Your task to perform on an android device: turn on location history Image 0: 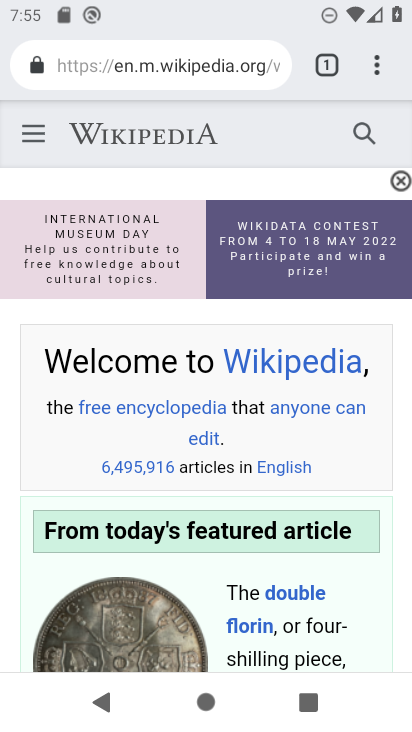
Step 0: press home button
Your task to perform on an android device: turn on location history Image 1: 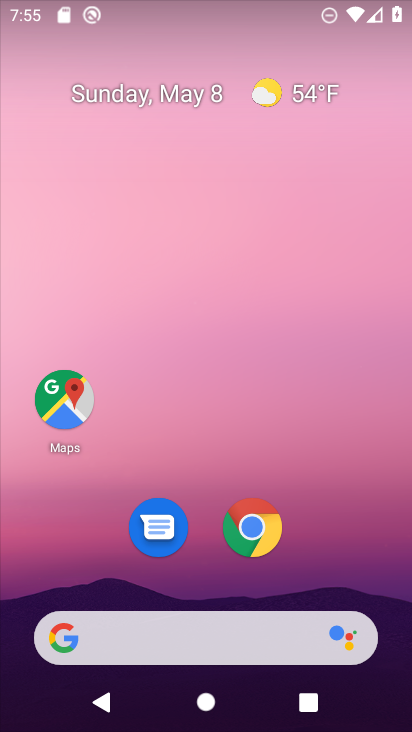
Step 1: drag from (343, 569) to (268, 111)
Your task to perform on an android device: turn on location history Image 2: 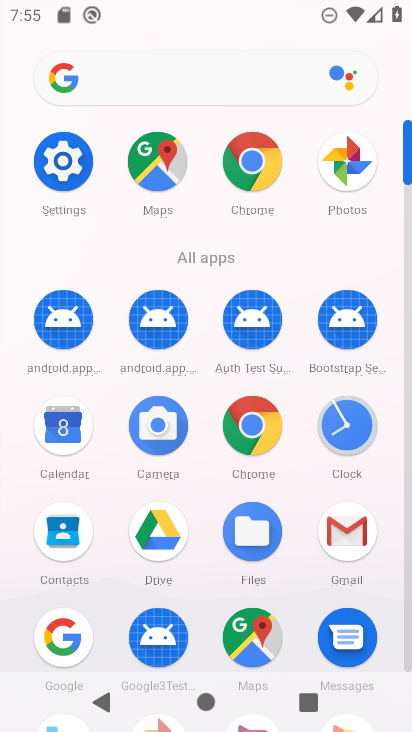
Step 2: click (53, 168)
Your task to perform on an android device: turn on location history Image 3: 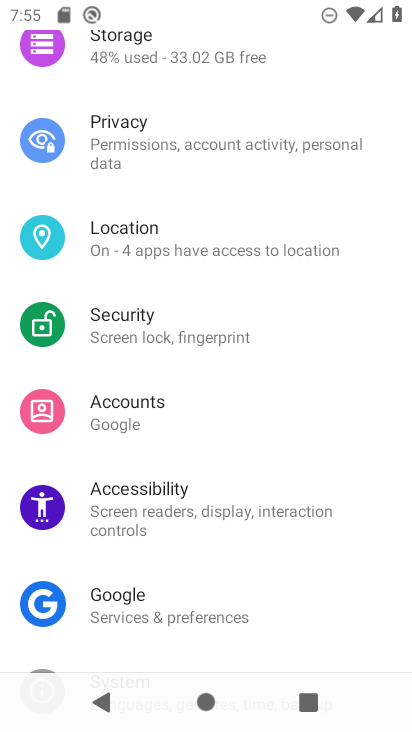
Step 3: click (180, 258)
Your task to perform on an android device: turn on location history Image 4: 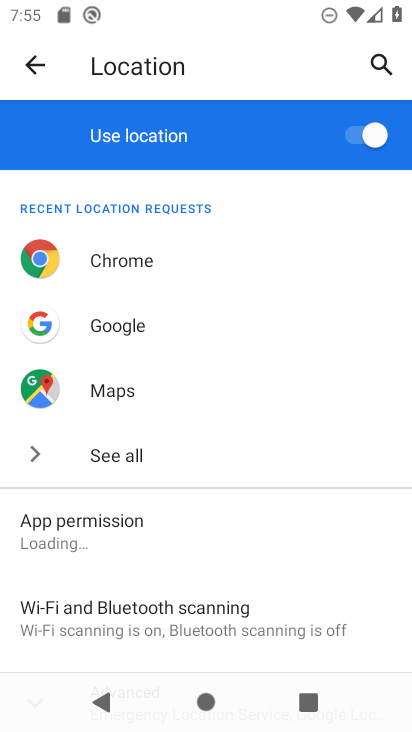
Step 4: drag from (321, 604) to (292, 301)
Your task to perform on an android device: turn on location history Image 5: 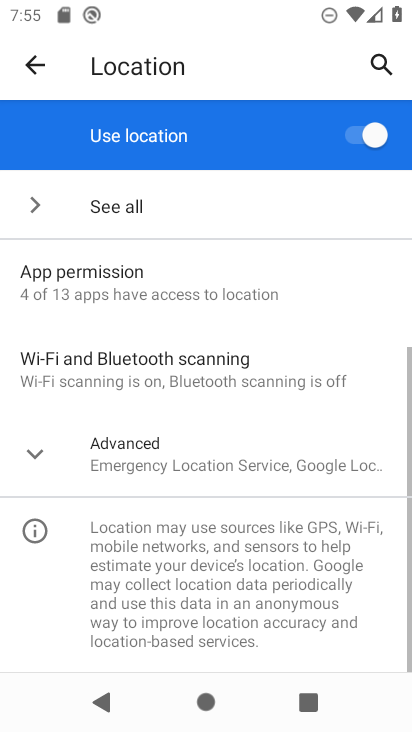
Step 5: click (292, 301)
Your task to perform on an android device: turn on location history Image 6: 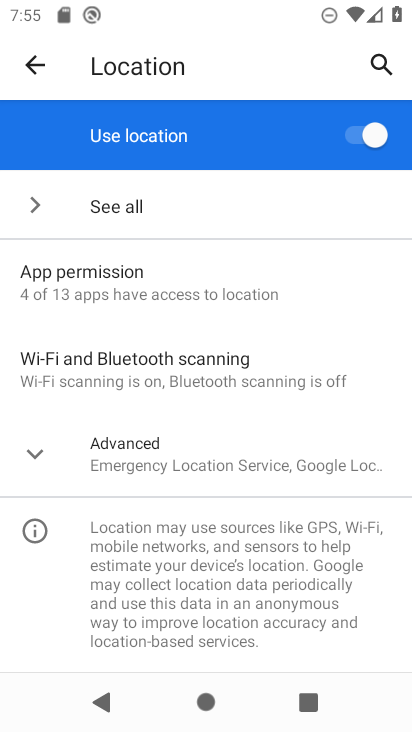
Step 6: click (174, 476)
Your task to perform on an android device: turn on location history Image 7: 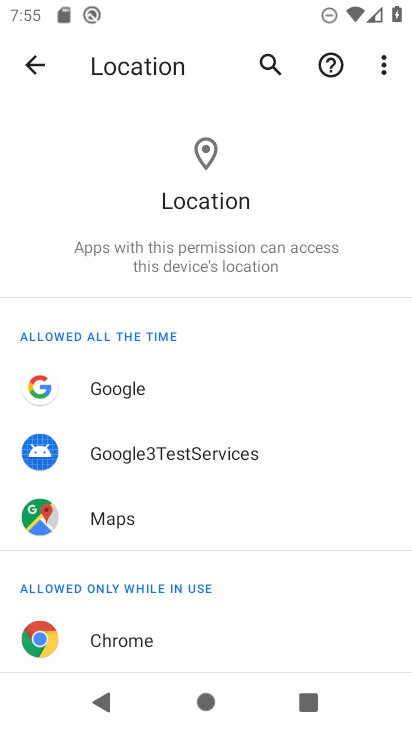
Step 7: click (42, 63)
Your task to perform on an android device: turn on location history Image 8: 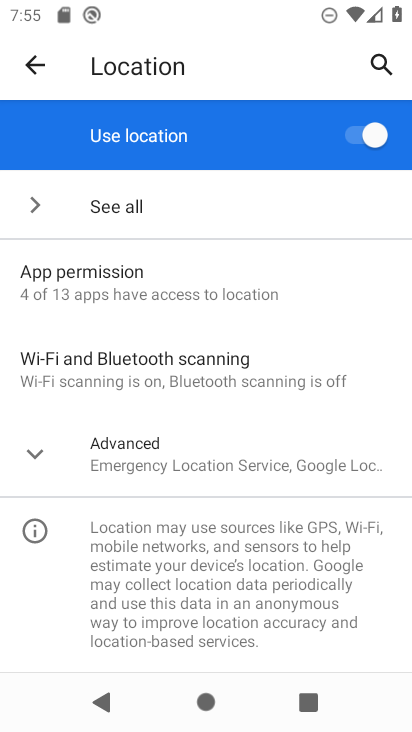
Step 8: click (204, 462)
Your task to perform on an android device: turn on location history Image 9: 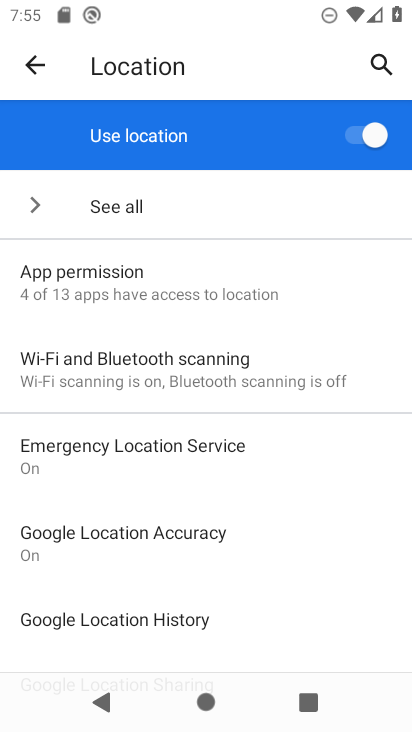
Step 9: drag from (362, 542) to (323, 168)
Your task to perform on an android device: turn on location history Image 10: 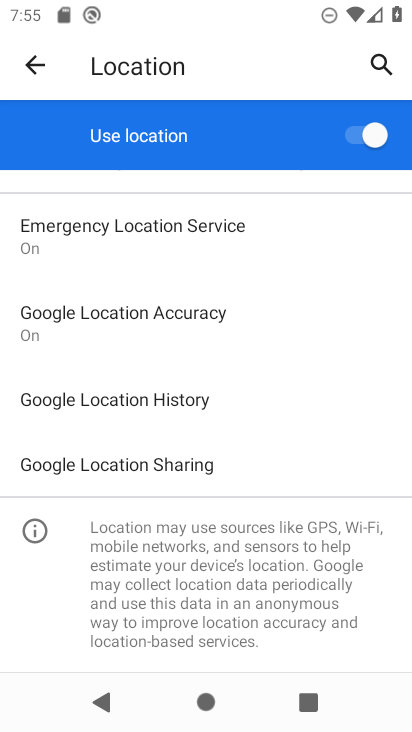
Step 10: click (196, 398)
Your task to perform on an android device: turn on location history Image 11: 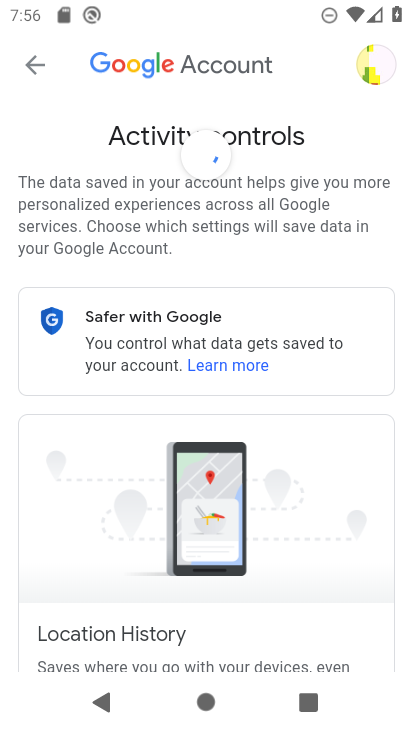
Step 11: task complete